Your task to perform on an android device: toggle javascript in the chrome app Image 0: 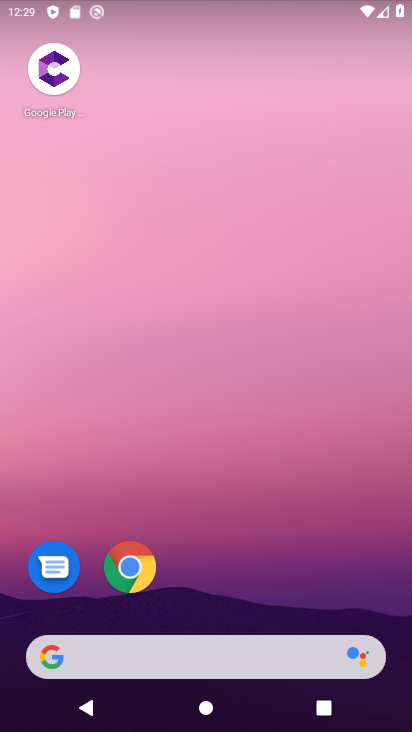
Step 0: click (130, 569)
Your task to perform on an android device: toggle javascript in the chrome app Image 1: 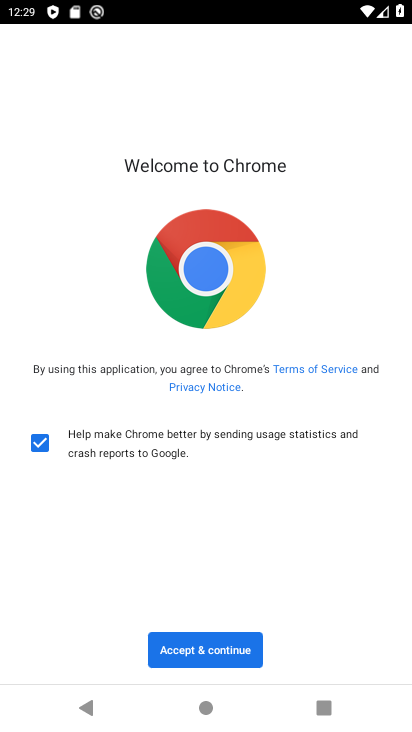
Step 1: click (218, 646)
Your task to perform on an android device: toggle javascript in the chrome app Image 2: 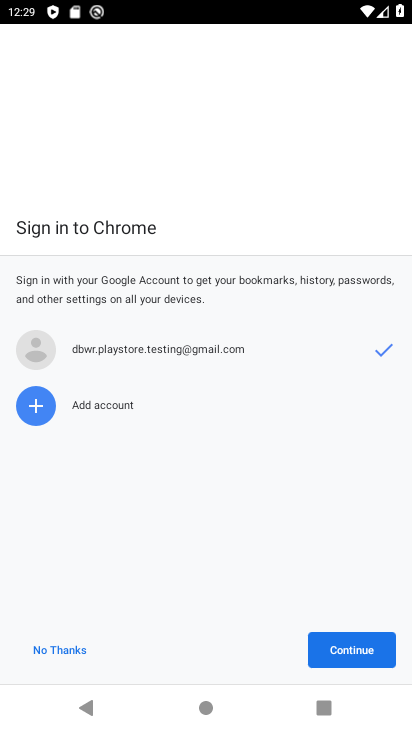
Step 2: click (351, 651)
Your task to perform on an android device: toggle javascript in the chrome app Image 3: 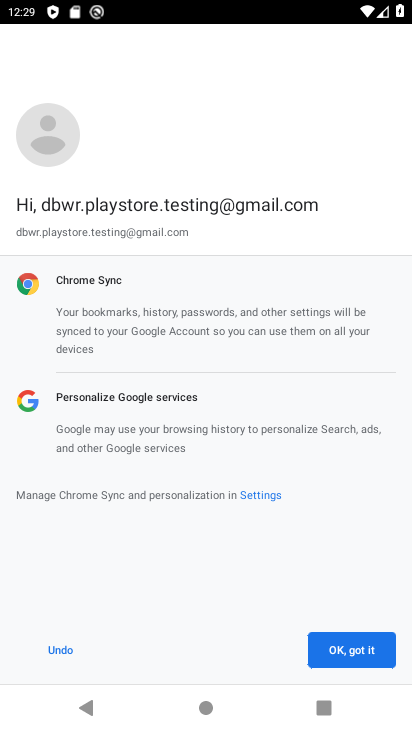
Step 3: click (351, 651)
Your task to perform on an android device: toggle javascript in the chrome app Image 4: 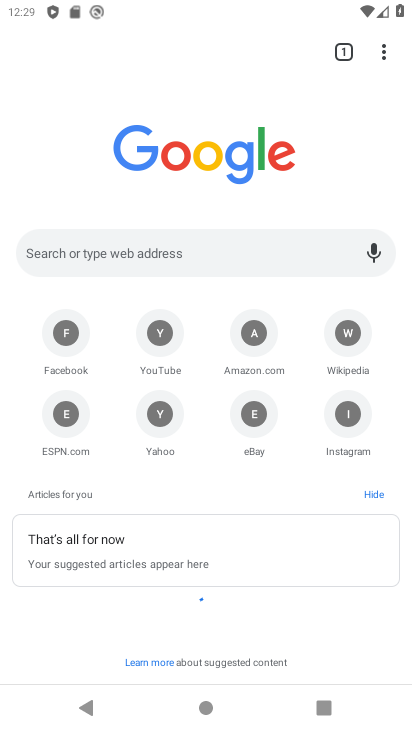
Step 4: click (385, 58)
Your task to perform on an android device: toggle javascript in the chrome app Image 5: 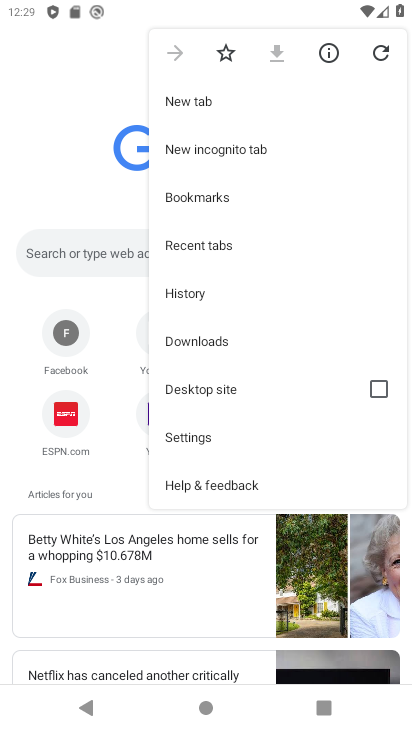
Step 5: click (176, 433)
Your task to perform on an android device: toggle javascript in the chrome app Image 6: 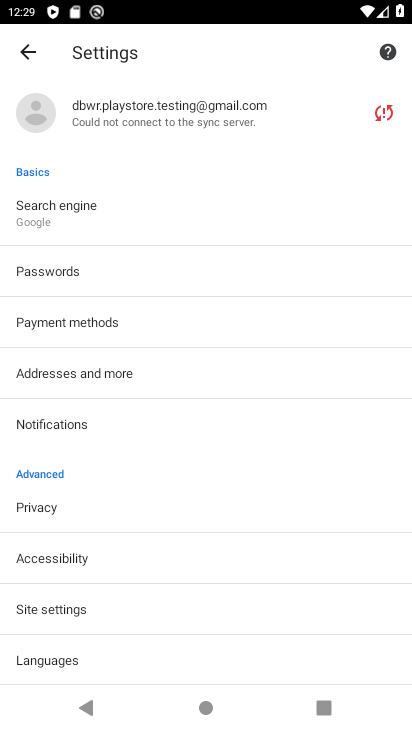
Step 6: click (44, 605)
Your task to perform on an android device: toggle javascript in the chrome app Image 7: 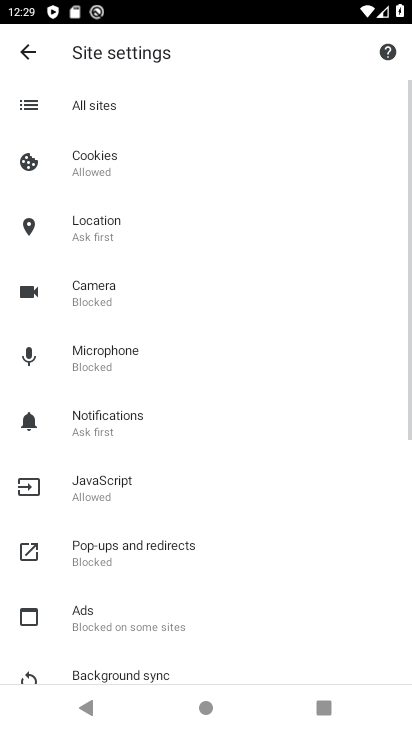
Step 7: click (97, 478)
Your task to perform on an android device: toggle javascript in the chrome app Image 8: 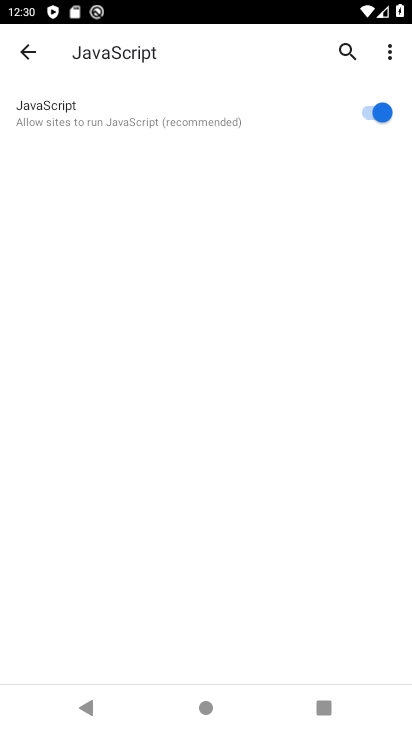
Step 8: click (372, 113)
Your task to perform on an android device: toggle javascript in the chrome app Image 9: 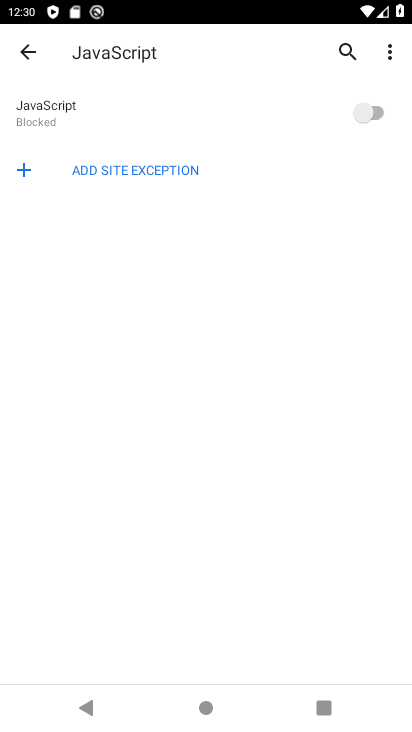
Step 9: task complete